Your task to perform on an android device: turn on translation in the chrome app Image 0: 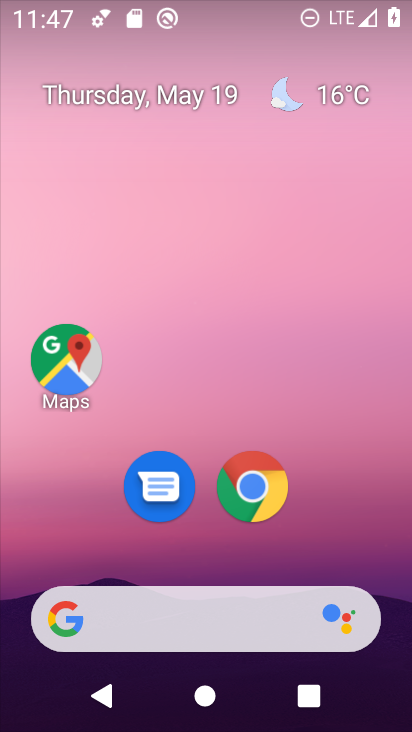
Step 0: click (283, 490)
Your task to perform on an android device: turn on translation in the chrome app Image 1: 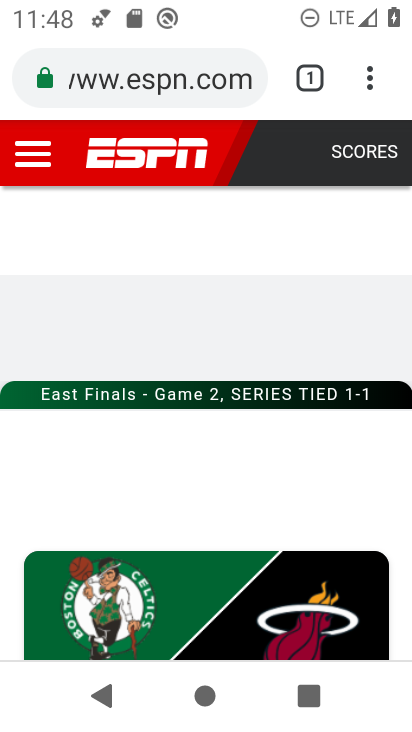
Step 1: click (379, 88)
Your task to perform on an android device: turn on translation in the chrome app Image 2: 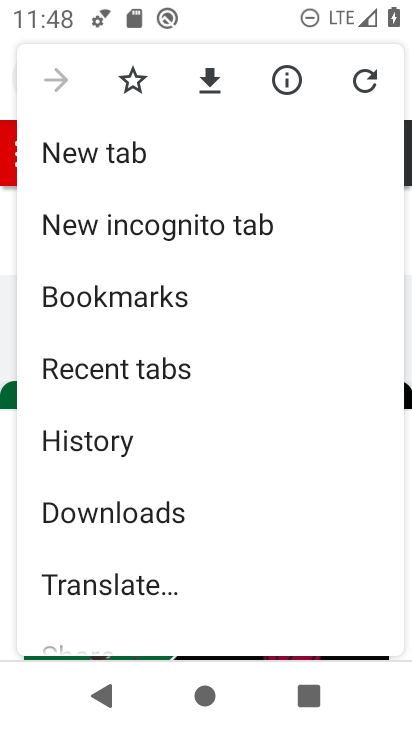
Step 2: drag from (189, 571) to (203, 483)
Your task to perform on an android device: turn on translation in the chrome app Image 3: 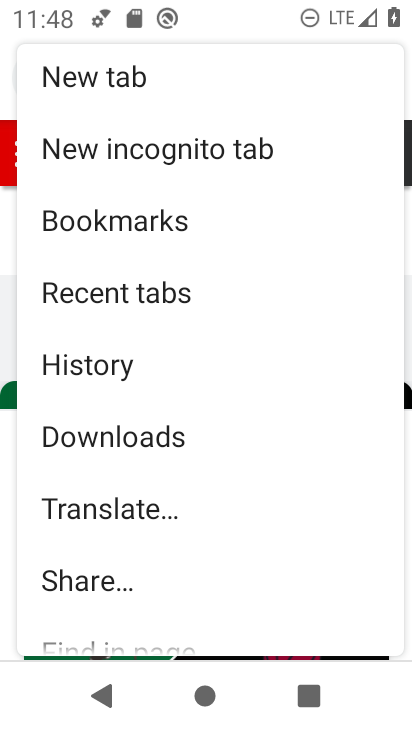
Step 3: drag from (201, 544) to (204, 342)
Your task to perform on an android device: turn on translation in the chrome app Image 4: 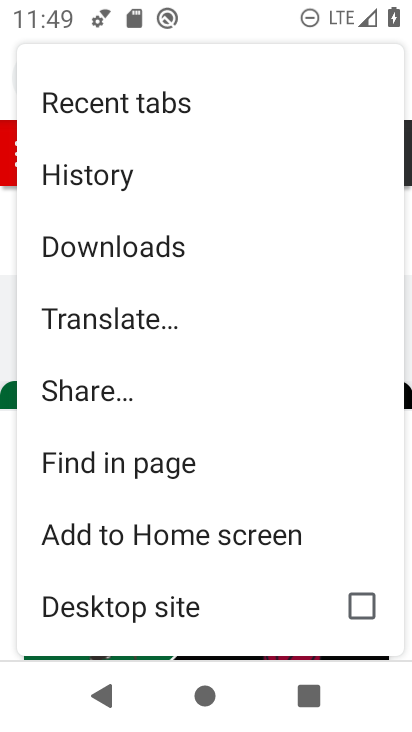
Step 4: click (148, 329)
Your task to perform on an android device: turn on translation in the chrome app Image 5: 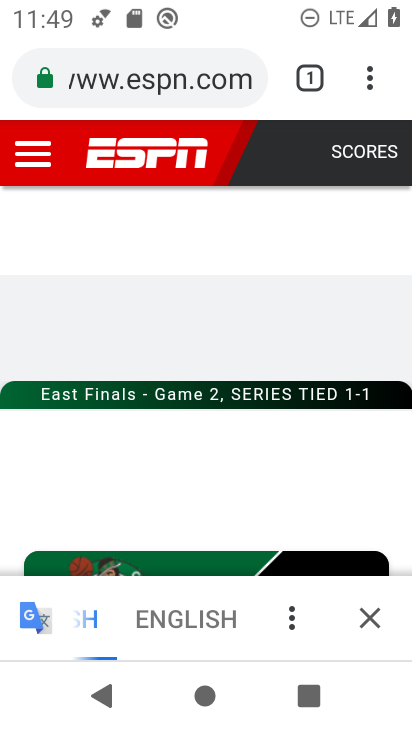
Step 5: task complete